Your task to perform on an android device: Open location settings Image 0: 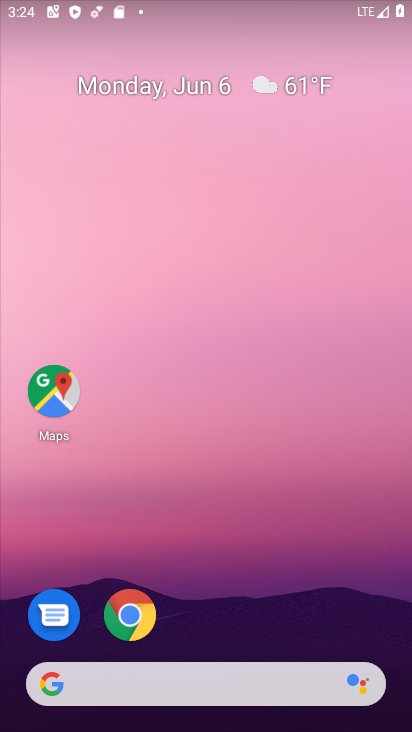
Step 0: press home button
Your task to perform on an android device: Open location settings Image 1: 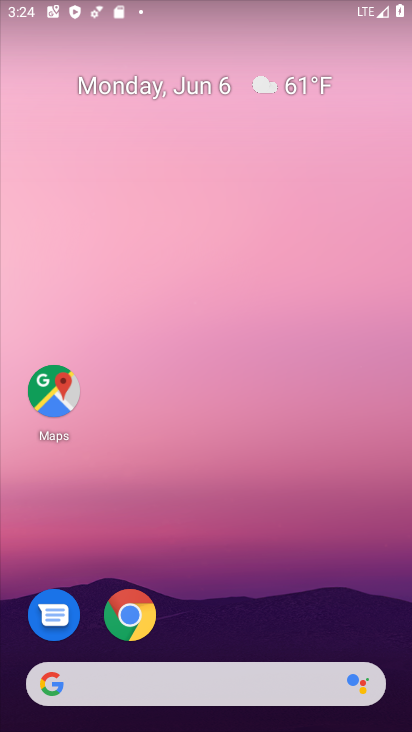
Step 1: drag from (380, 644) to (285, 24)
Your task to perform on an android device: Open location settings Image 2: 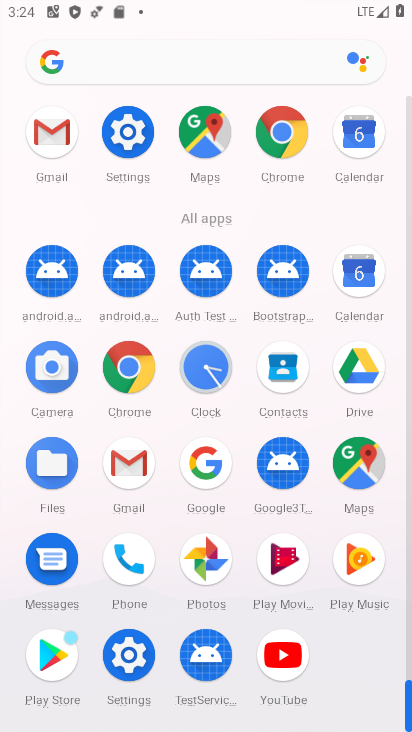
Step 2: click (127, 654)
Your task to perform on an android device: Open location settings Image 3: 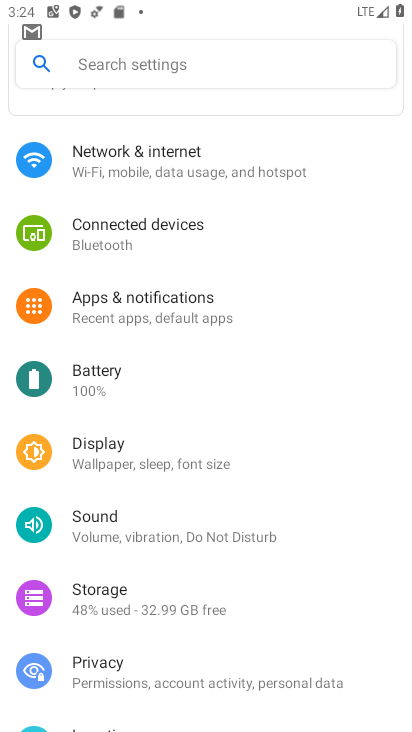
Step 3: drag from (353, 622) to (250, 226)
Your task to perform on an android device: Open location settings Image 4: 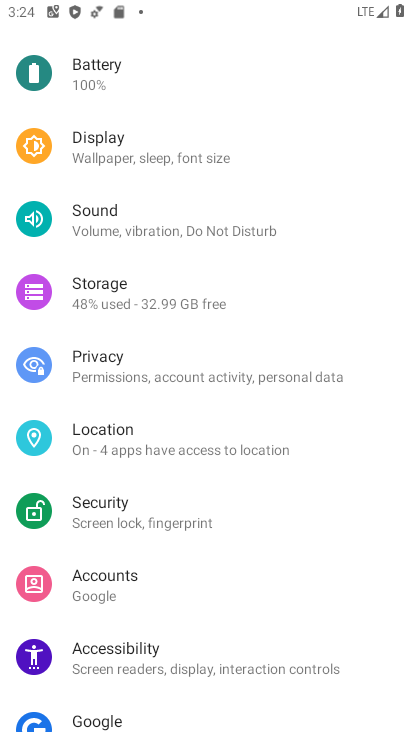
Step 4: click (120, 426)
Your task to perform on an android device: Open location settings Image 5: 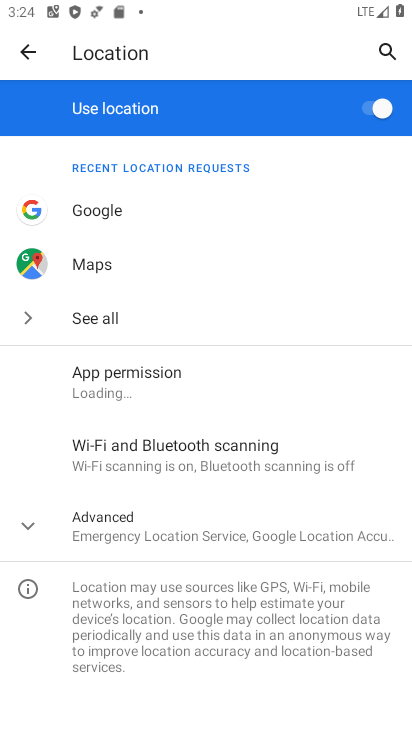
Step 5: task complete